Your task to perform on an android device: Turn off the flashlight Image 0: 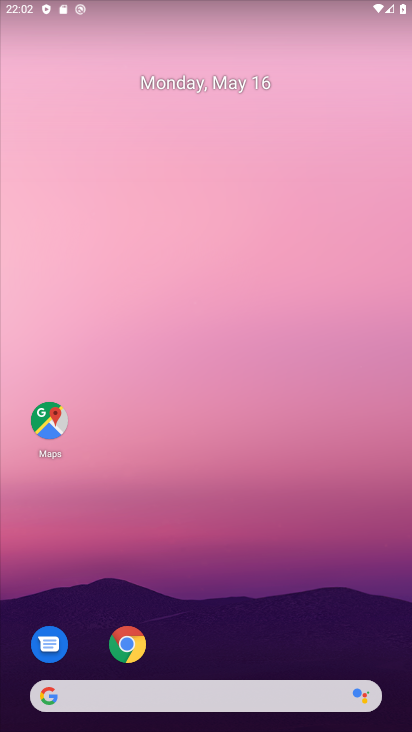
Step 0: drag from (26, 608) to (200, 164)
Your task to perform on an android device: Turn off the flashlight Image 1: 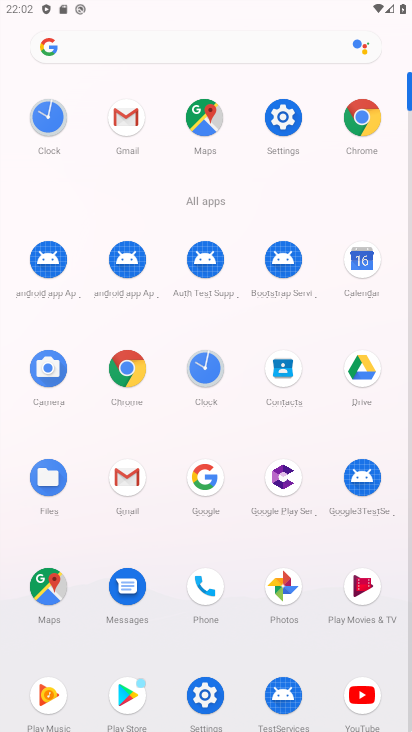
Step 1: click (205, 697)
Your task to perform on an android device: Turn off the flashlight Image 2: 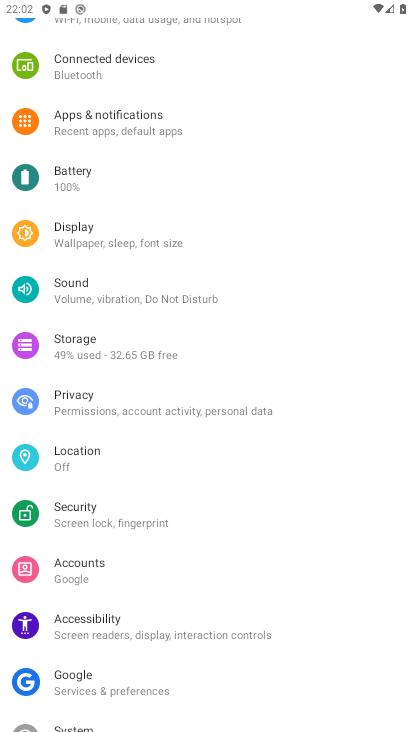
Step 2: task complete